Your task to perform on an android device: snooze an email in the gmail app Image 0: 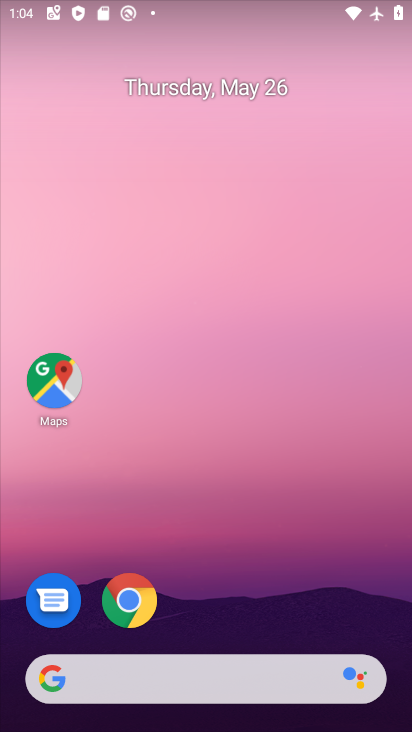
Step 0: drag from (267, 484) to (272, 136)
Your task to perform on an android device: snooze an email in the gmail app Image 1: 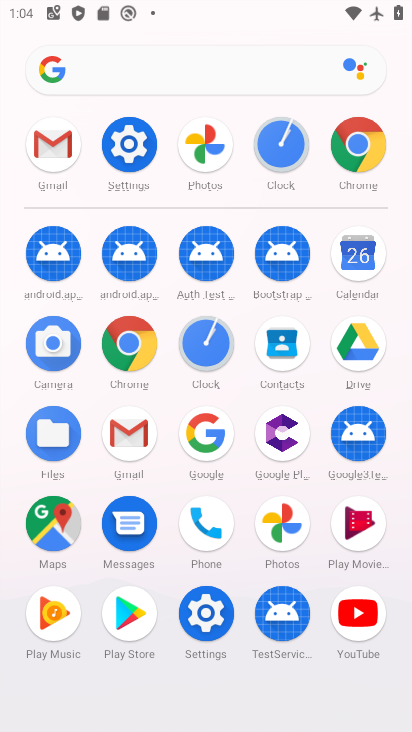
Step 1: click (58, 151)
Your task to perform on an android device: snooze an email in the gmail app Image 2: 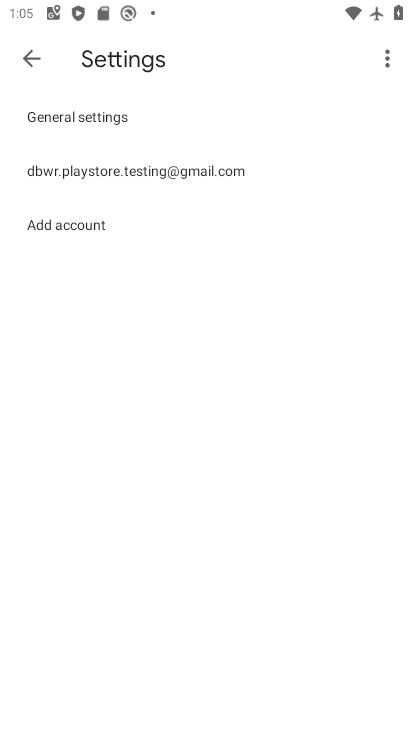
Step 2: click (28, 62)
Your task to perform on an android device: snooze an email in the gmail app Image 3: 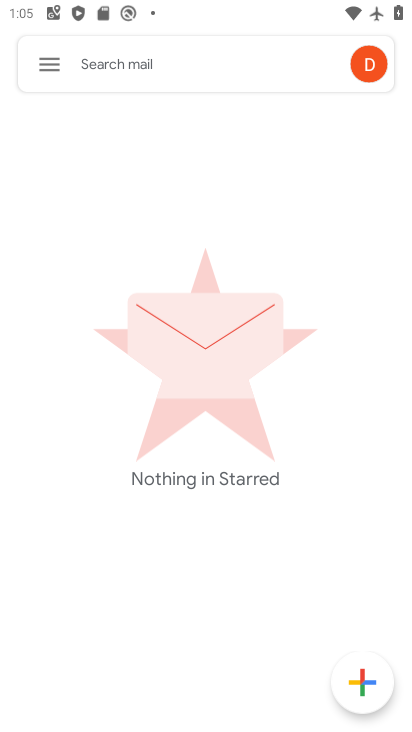
Step 3: click (42, 66)
Your task to perform on an android device: snooze an email in the gmail app Image 4: 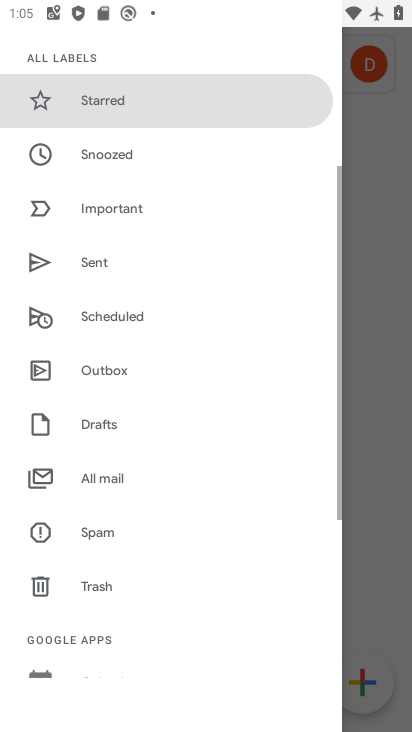
Step 4: click (113, 490)
Your task to perform on an android device: snooze an email in the gmail app Image 5: 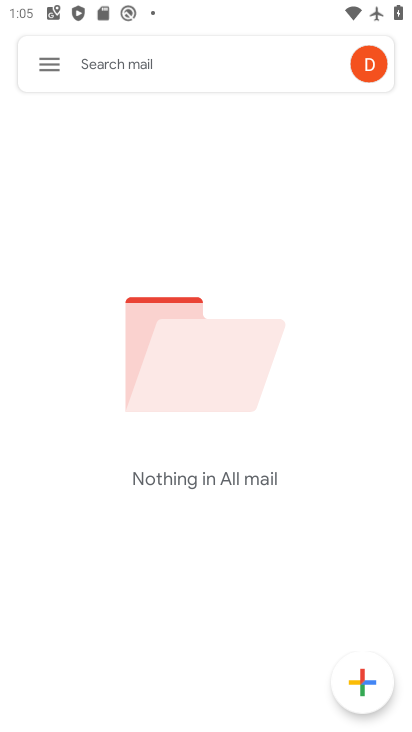
Step 5: task complete